Your task to perform on an android device: turn off airplane mode Image 0: 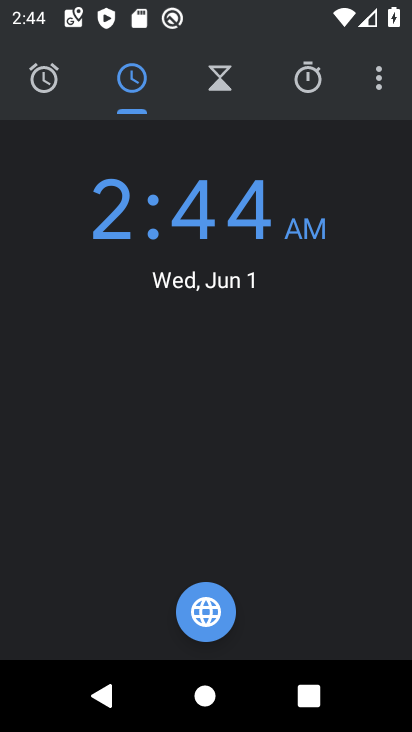
Step 0: press home button
Your task to perform on an android device: turn off airplane mode Image 1: 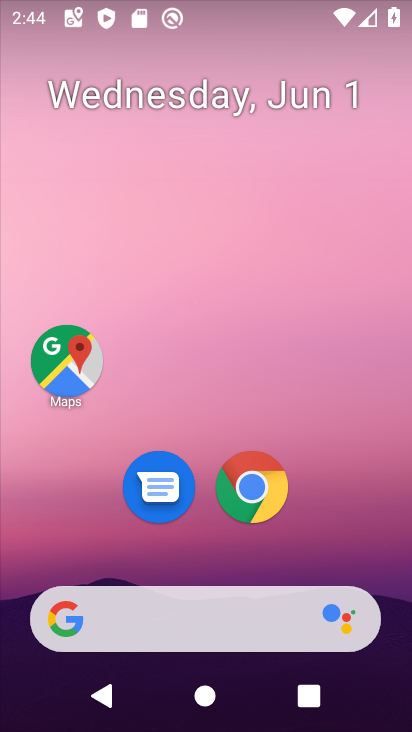
Step 1: drag from (311, 530) to (307, 66)
Your task to perform on an android device: turn off airplane mode Image 2: 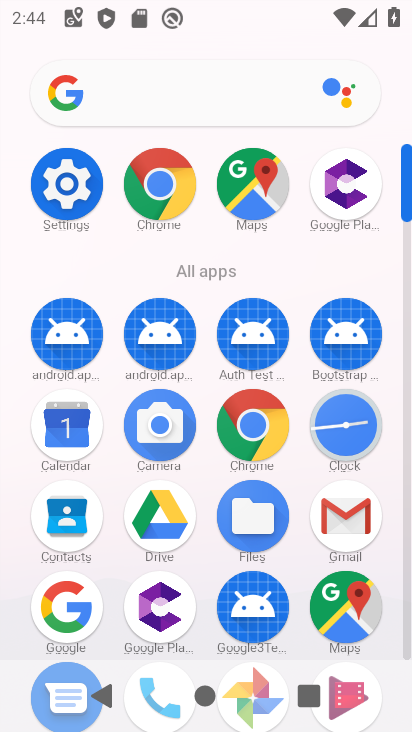
Step 2: click (94, 175)
Your task to perform on an android device: turn off airplane mode Image 3: 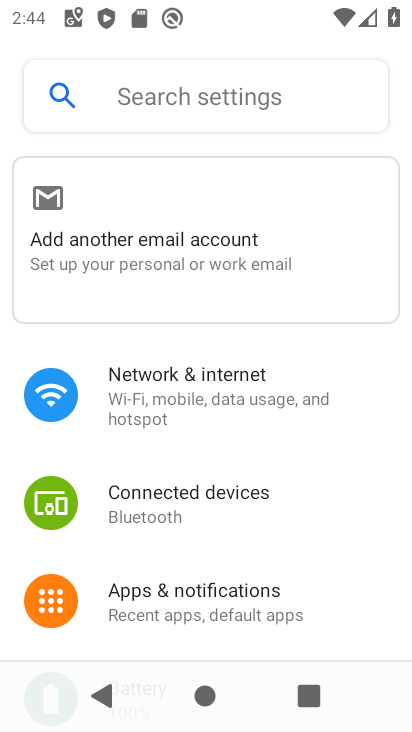
Step 3: click (225, 382)
Your task to perform on an android device: turn off airplane mode Image 4: 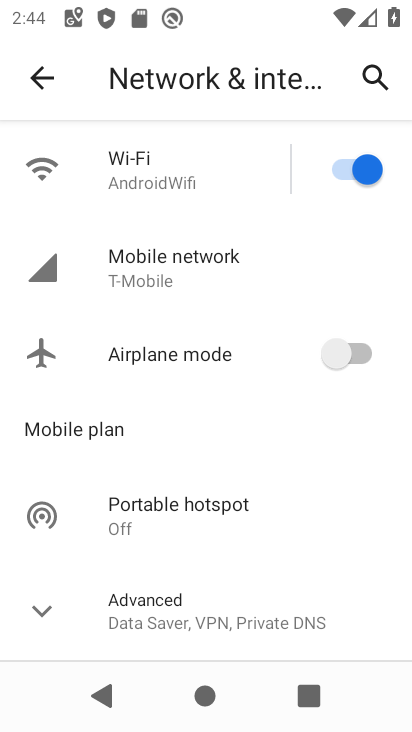
Step 4: task complete